Your task to perform on an android device: Go to location settings Image 0: 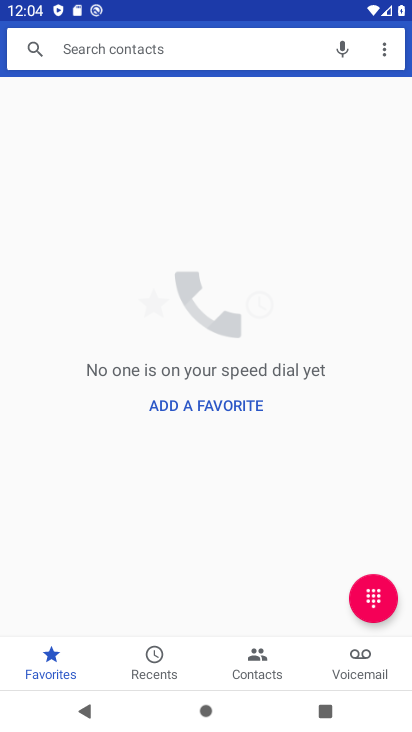
Step 0: press home button
Your task to perform on an android device: Go to location settings Image 1: 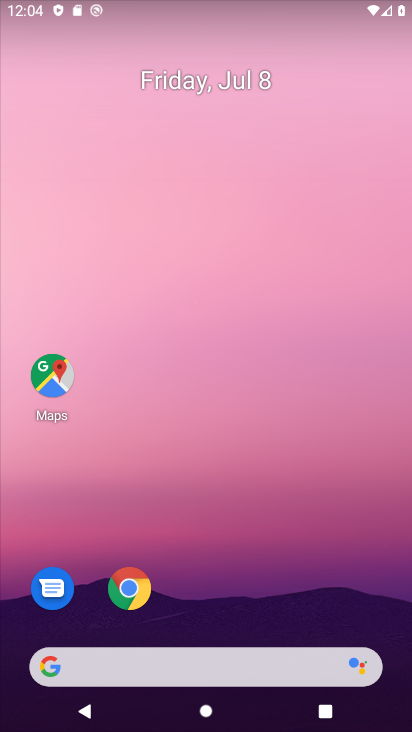
Step 1: click (243, 107)
Your task to perform on an android device: Go to location settings Image 2: 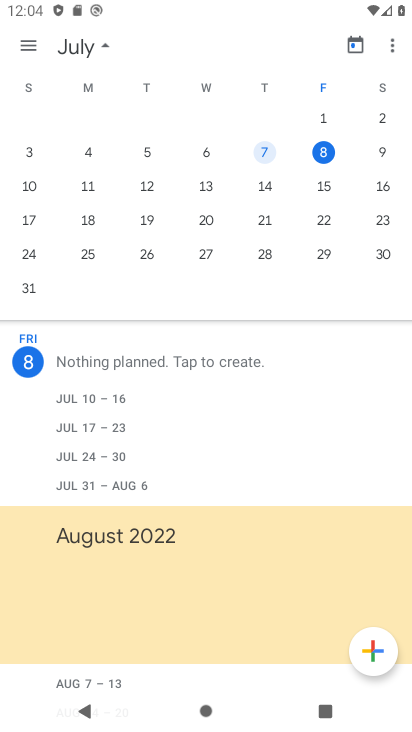
Step 2: press home button
Your task to perform on an android device: Go to location settings Image 3: 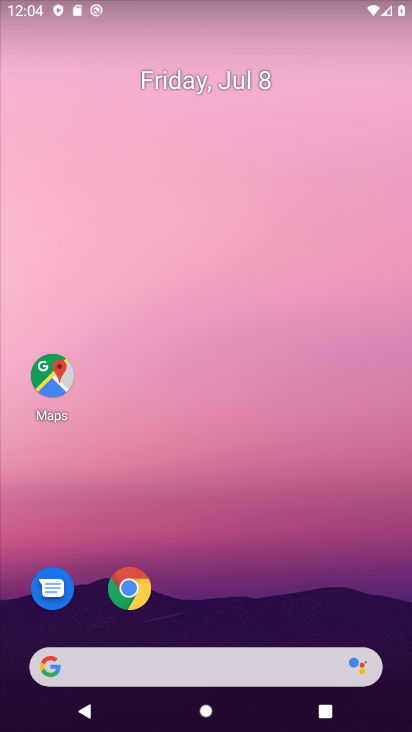
Step 3: drag from (193, 537) to (203, 19)
Your task to perform on an android device: Go to location settings Image 4: 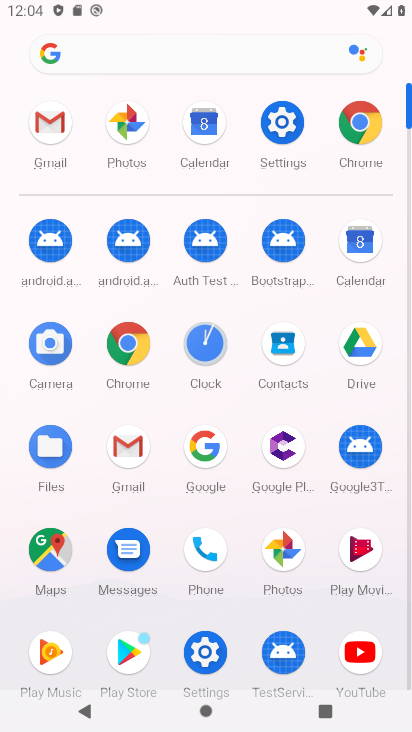
Step 4: click (281, 130)
Your task to perform on an android device: Go to location settings Image 5: 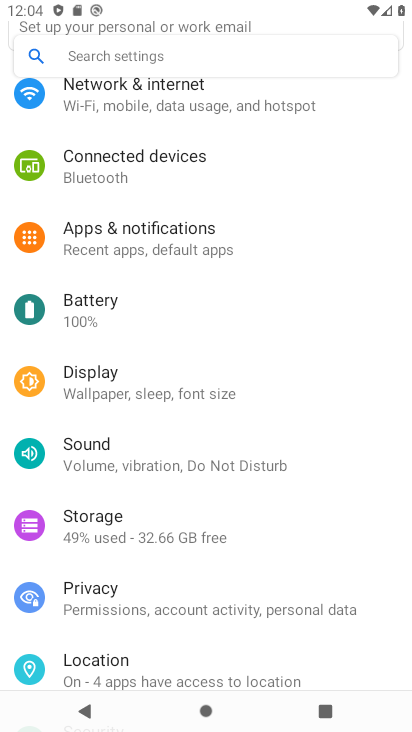
Step 5: click (106, 662)
Your task to perform on an android device: Go to location settings Image 6: 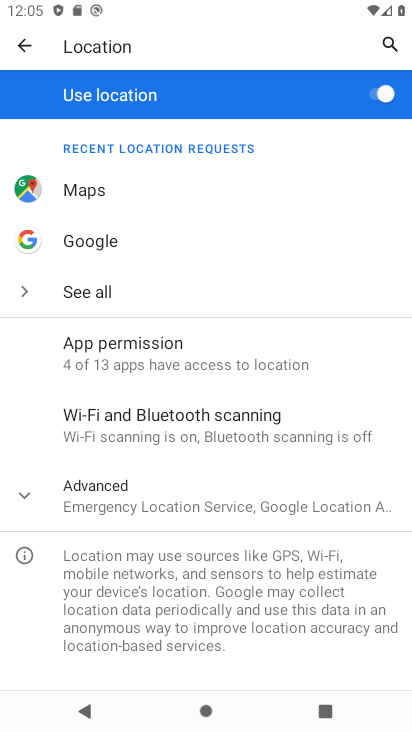
Step 6: task complete